Your task to perform on an android device: Open CNN.com Image 0: 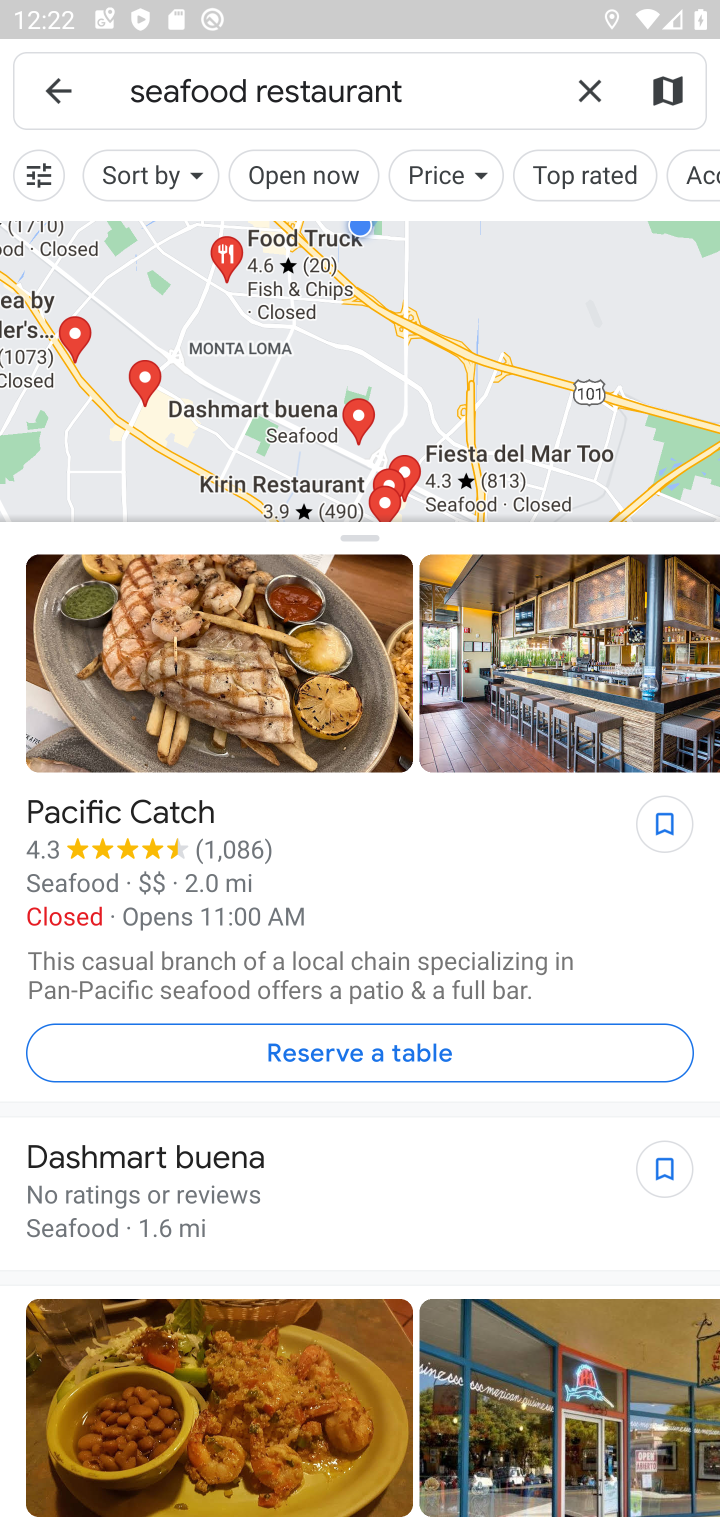
Step 0: press back button
Your task to perform on an android device: Open CNN.com Image 1: 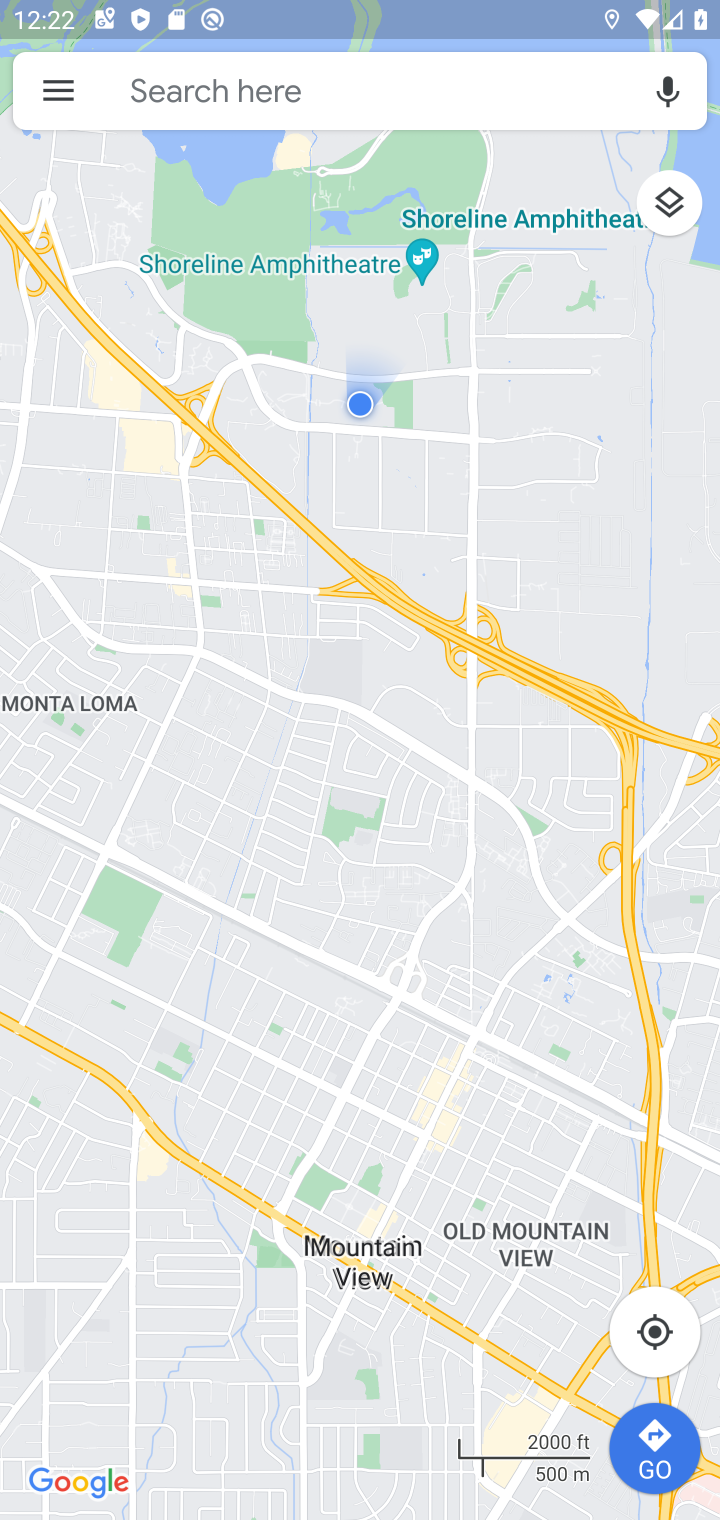
Step 1: press back button
Your task to perform on an android device: Open CNN.com Image 2: 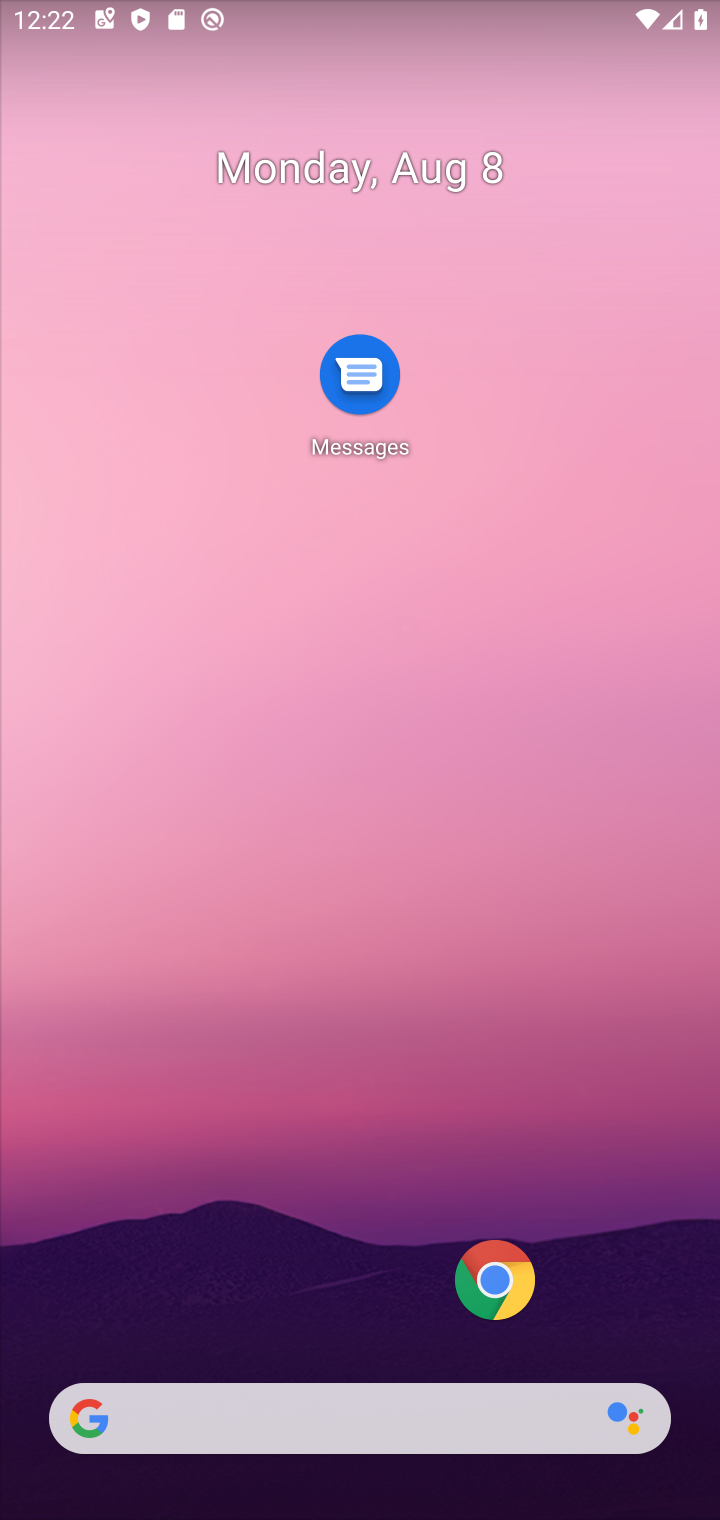
Step 2: click (502, 1290)
Your task to perform on an android device: Open CNN.com Image 3: 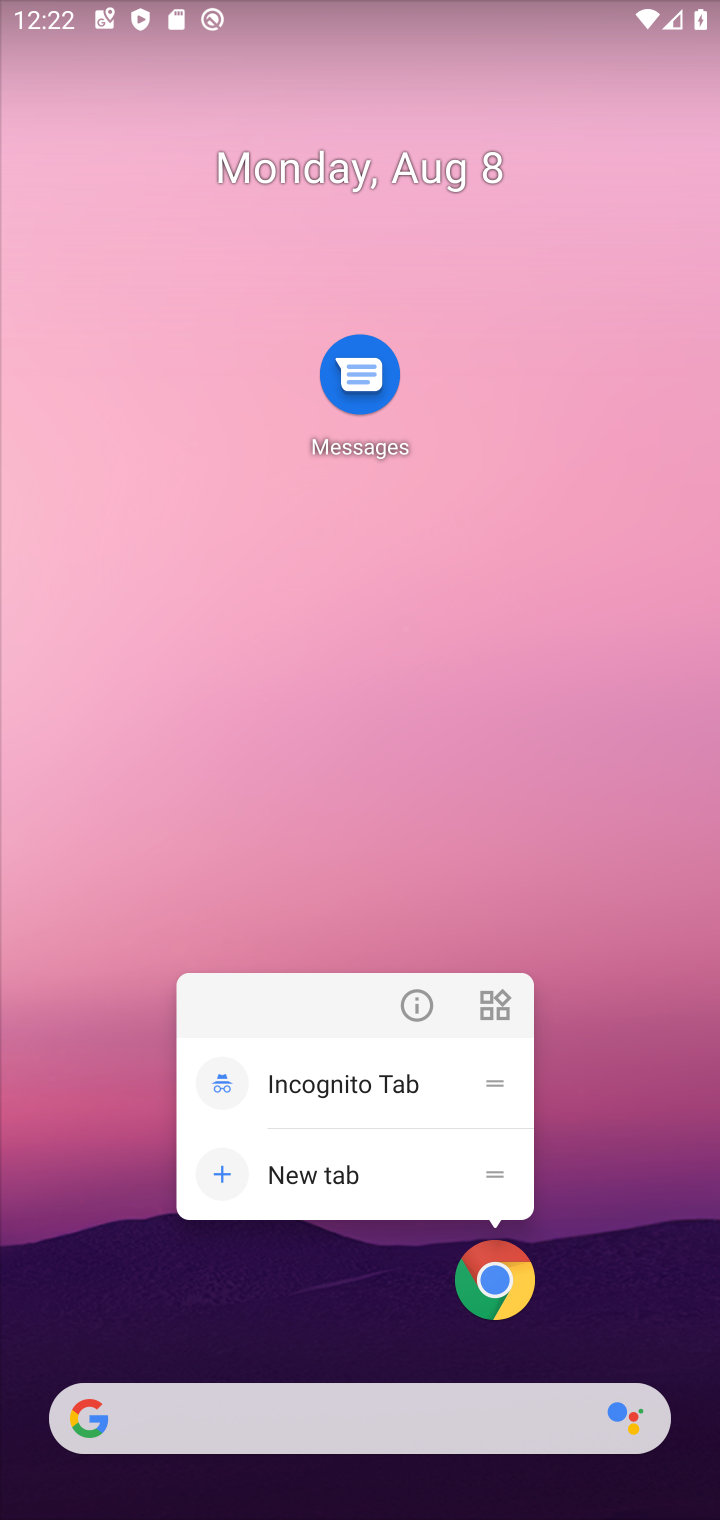
Step 3: click (527, 1281)
Your task to perform on an android device: Open CNN.com Image 4: 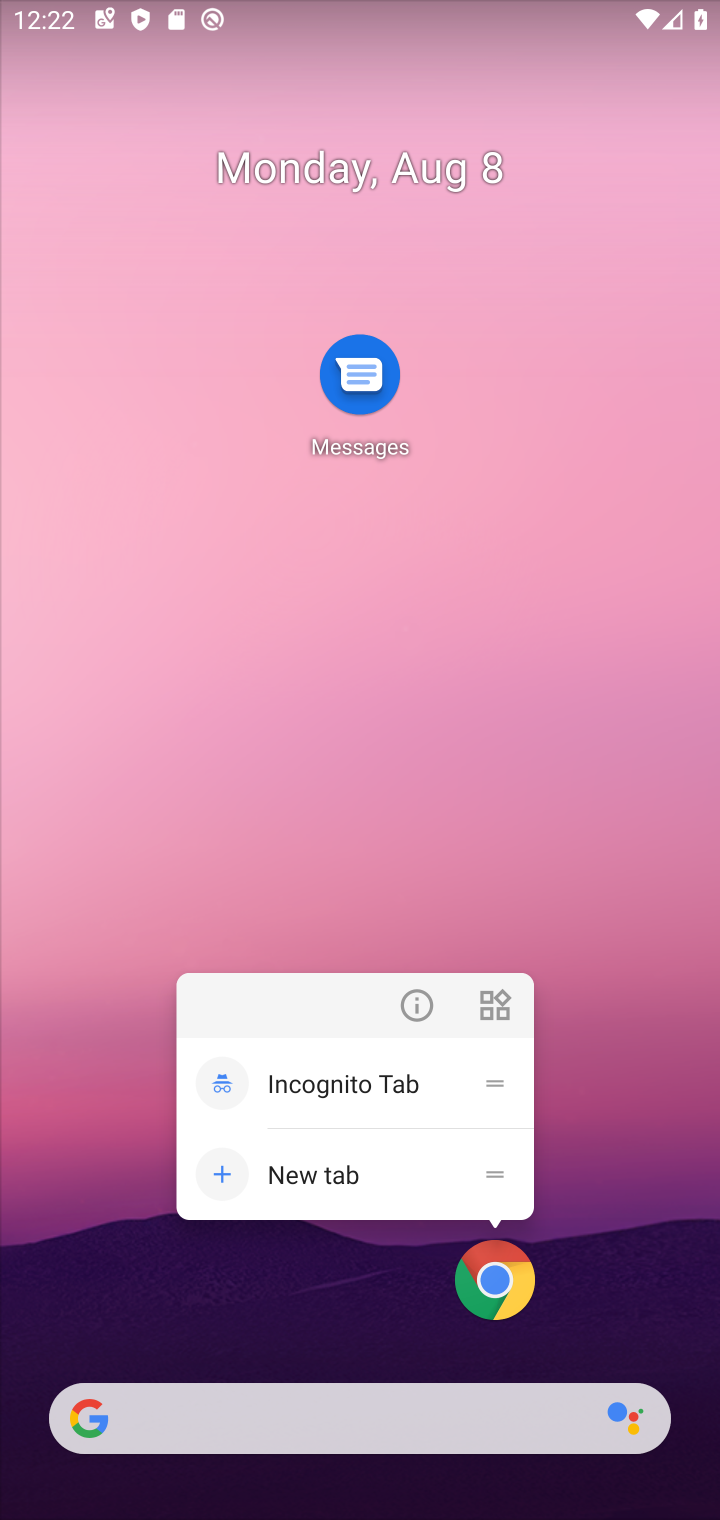
Step 4: click (473, 1284)
Your task to perform on an android device: Open CNN.com Image 5: 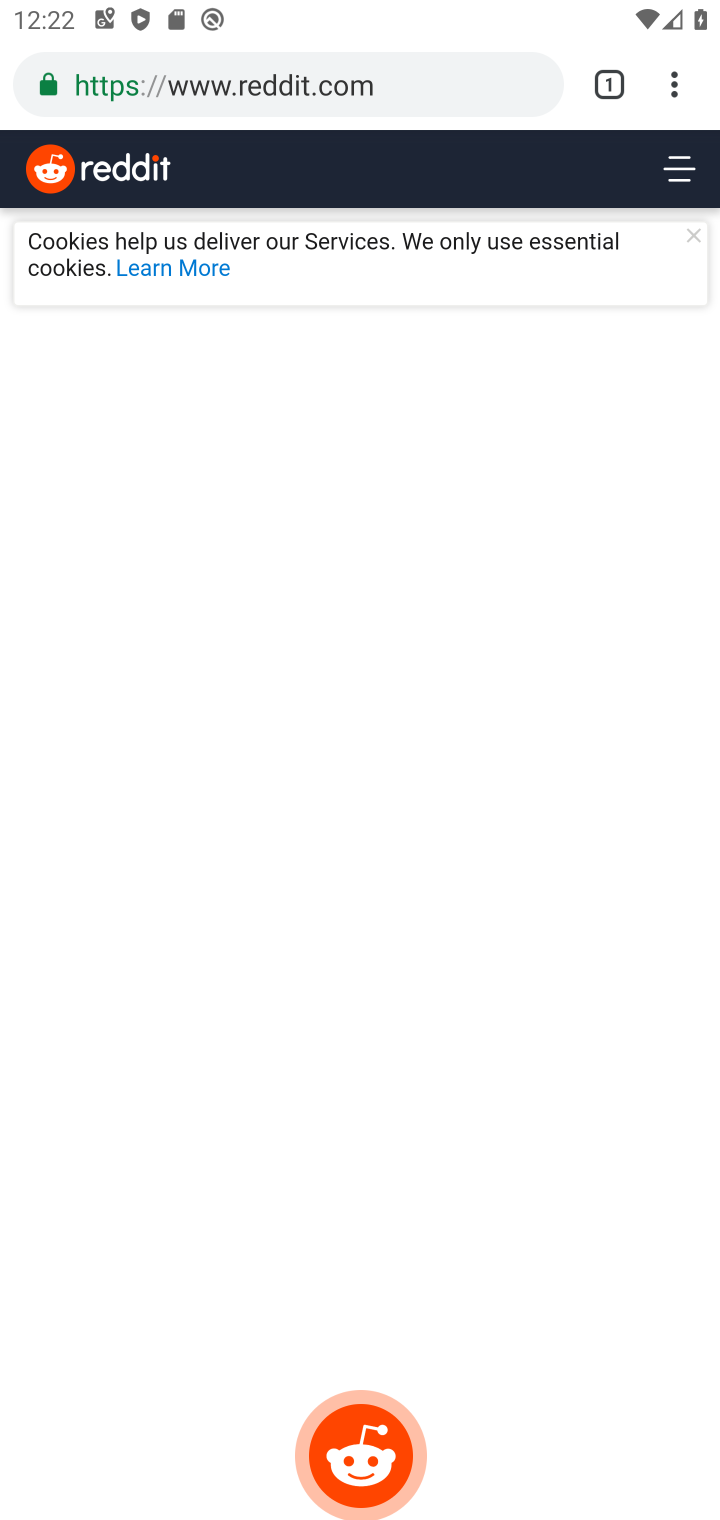
Step 5: click (598, 102)
Your task to perform on an android device: Open CNN.com Image 6: 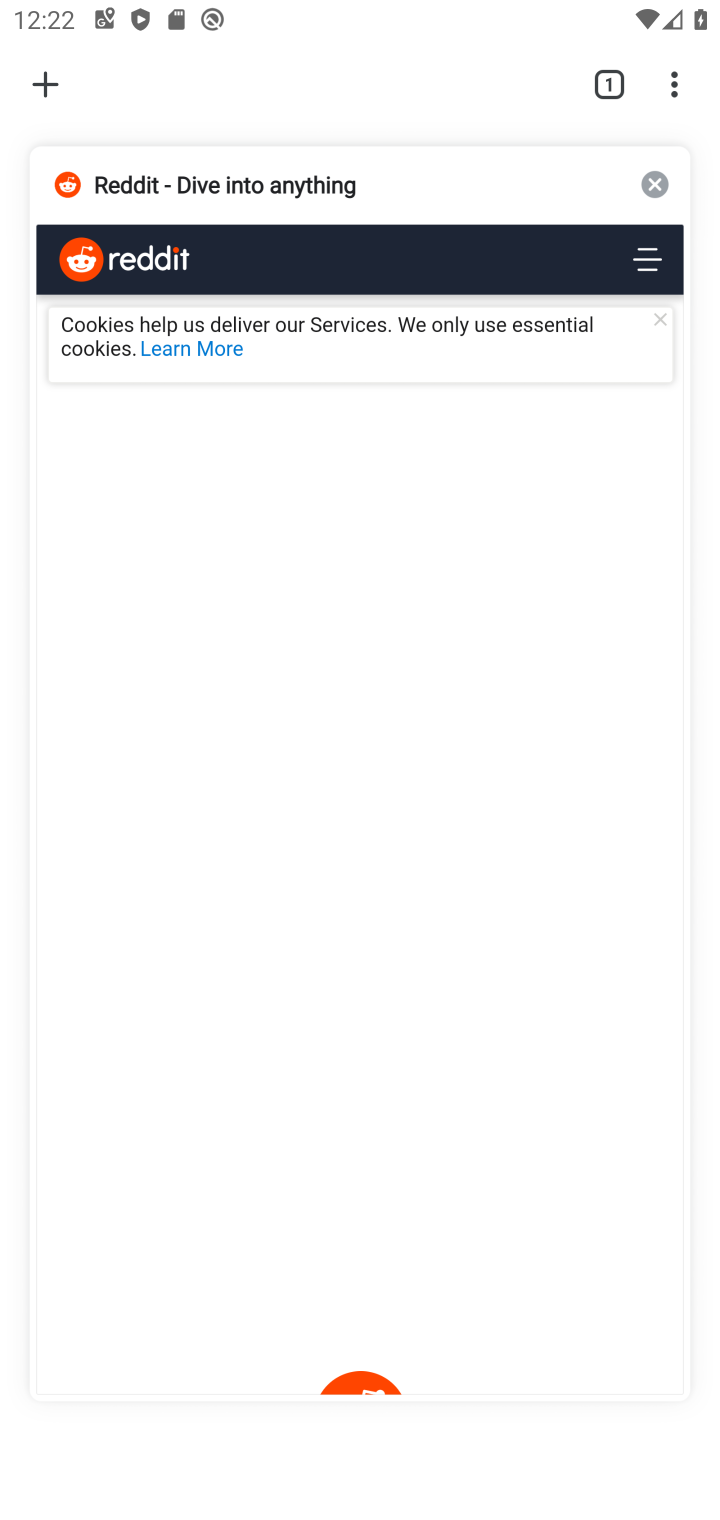
Step 6: click (21, 82)
Your task to perform on an android device: Open CNN.com Image 7: 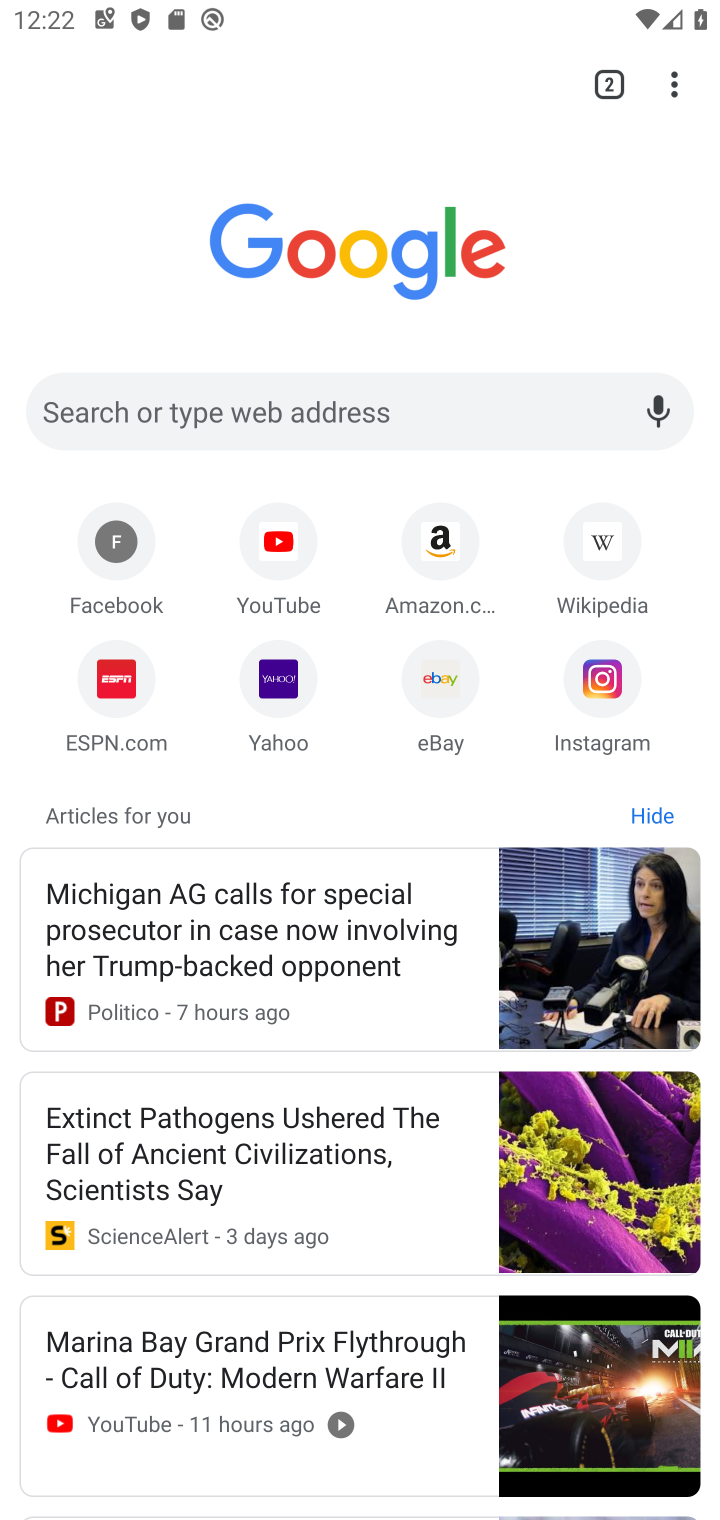
Step 7: click (231, 419)
Your task to perform on an android device: Open CNN.com Image 8: 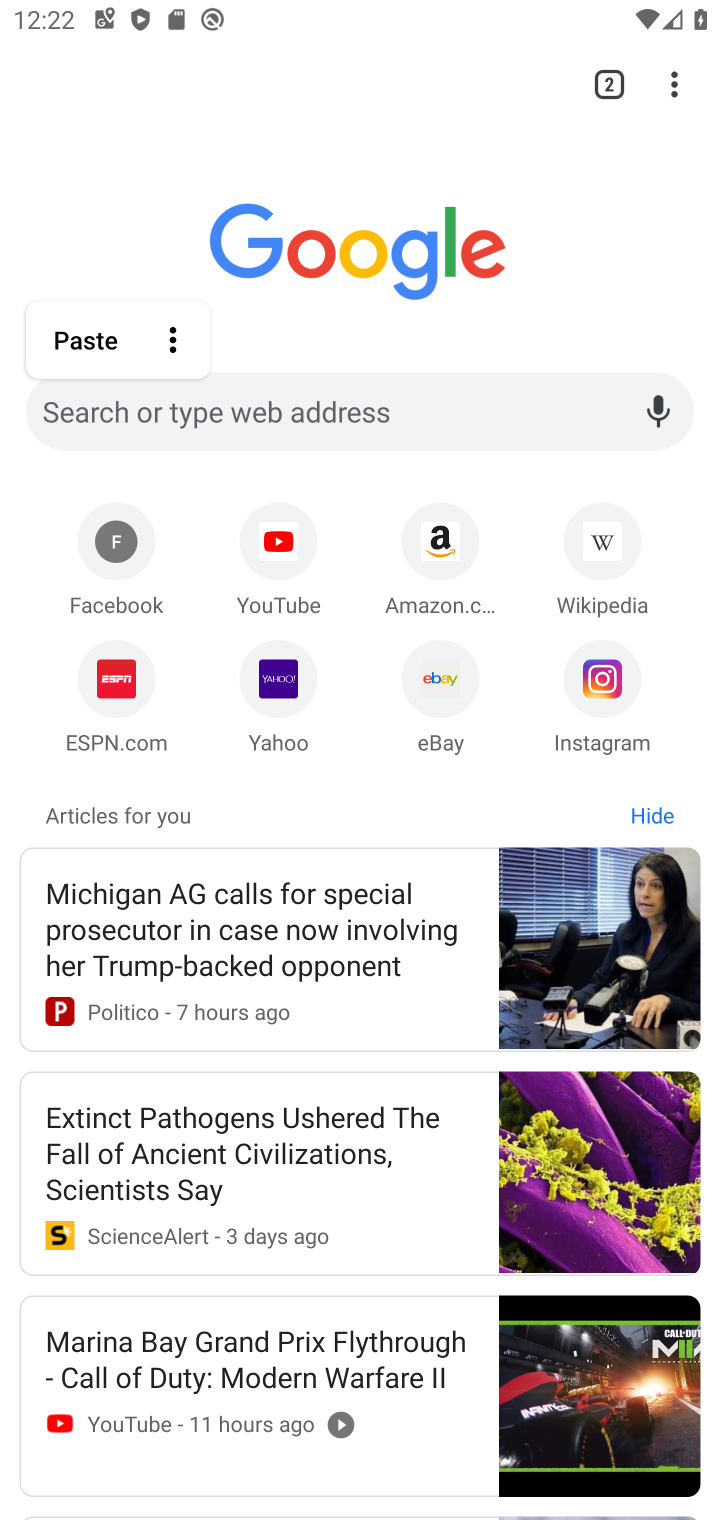
Step 8: type "cnn.com"
Your task to perform on an android device: Open CNN.com Image 9: 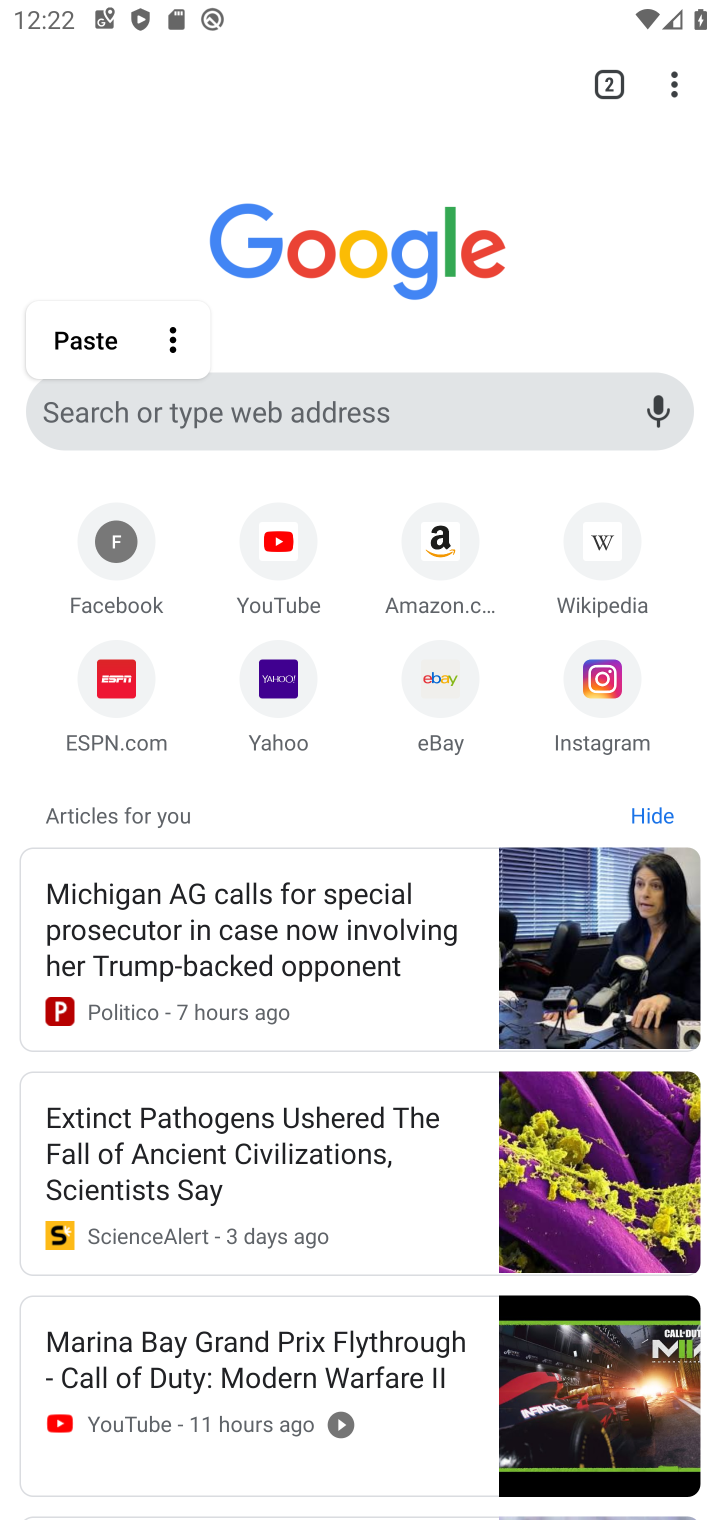
Step 9: click (106, 422)
Your task to perform on an android device: Open CNN.com Image 10: 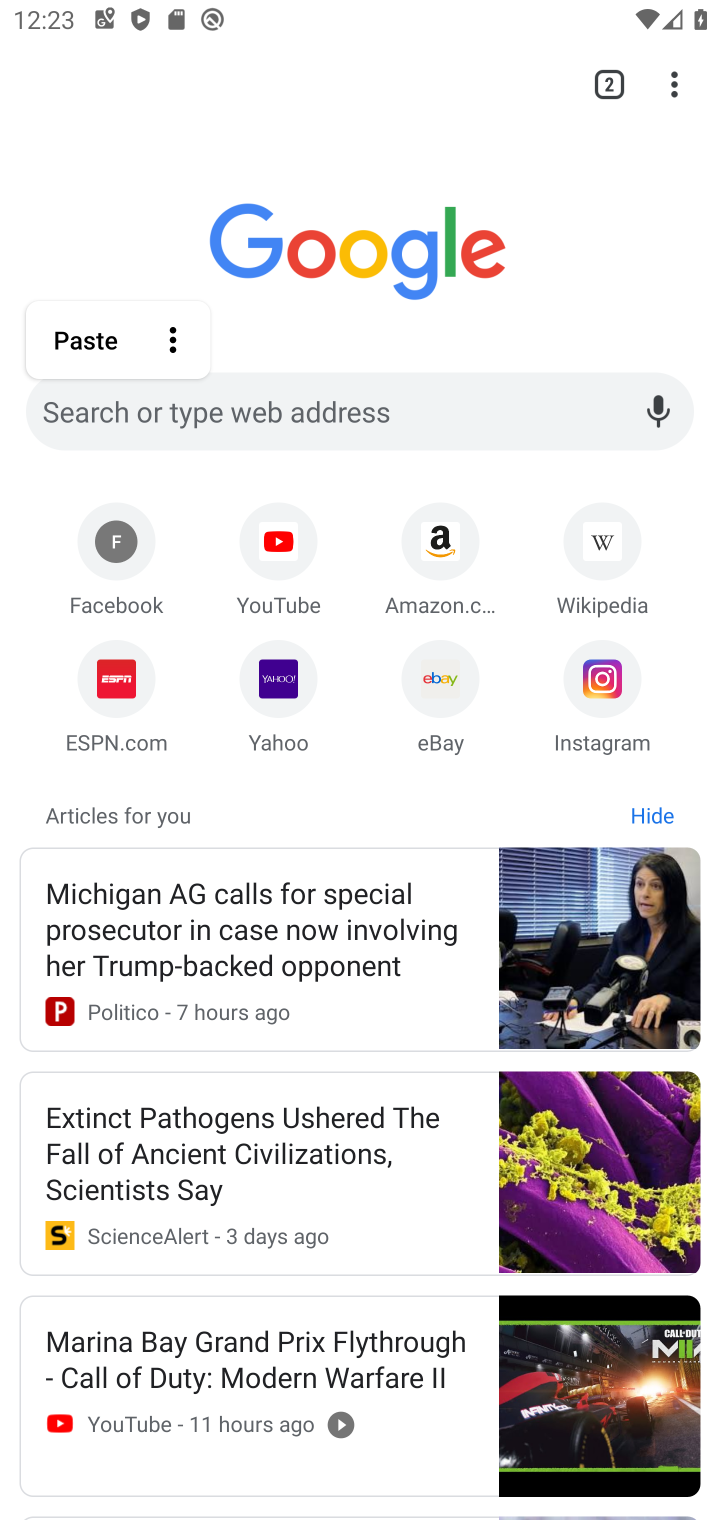
Step 10: type "cnn.com"
Your task to perform on an android device: Open CNN.com Image 11: 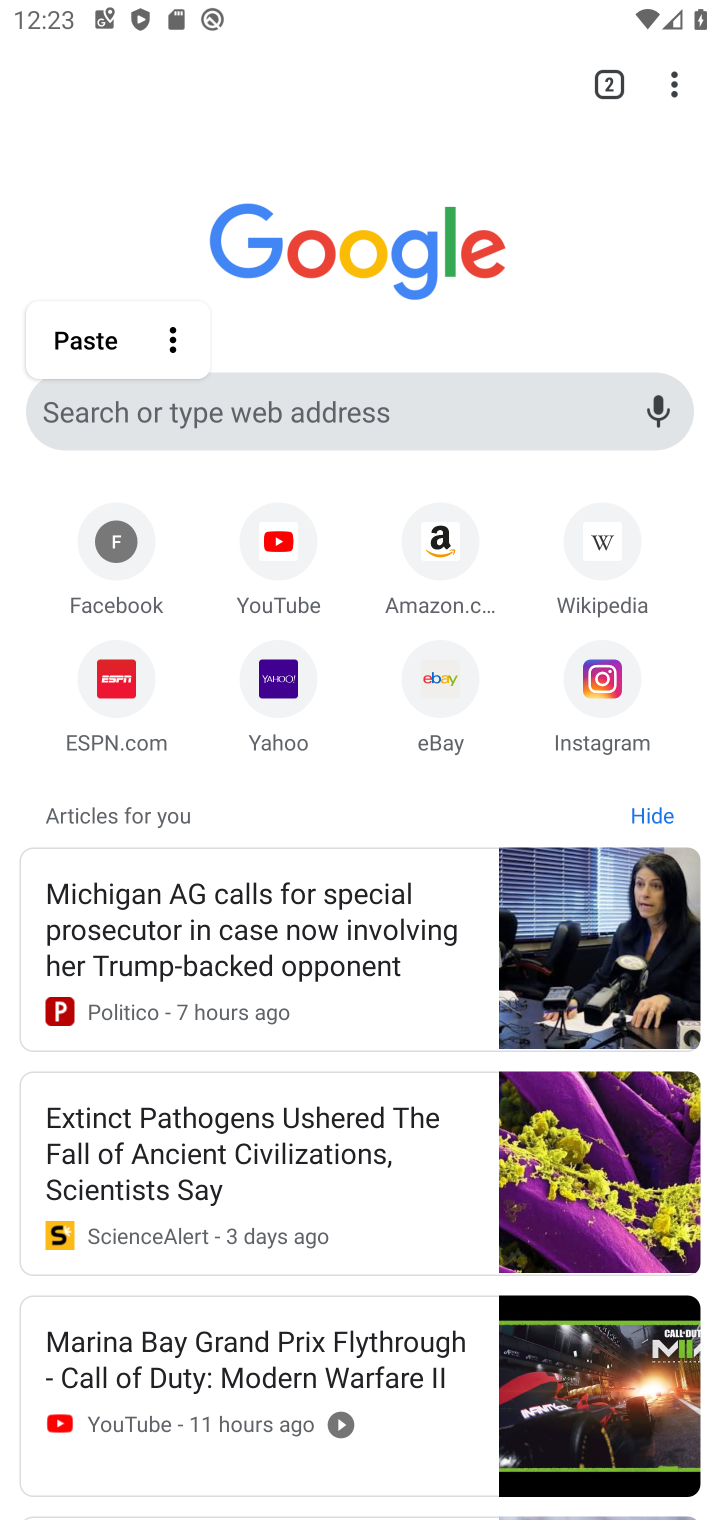
Step 11: task complete